Your task to perform on an android device: toggle notifications settings in the gmail app Image 0: 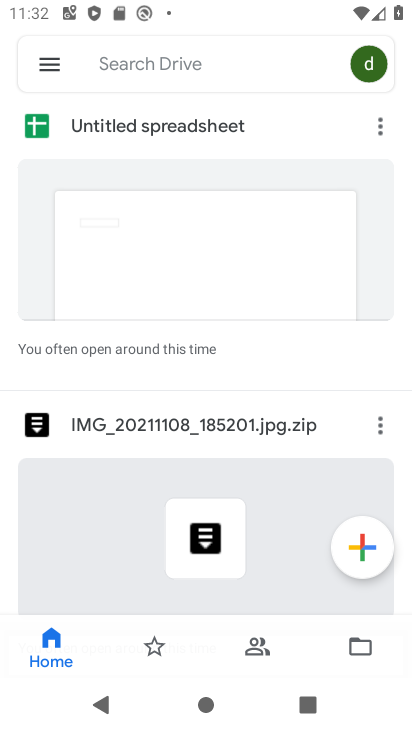
Step 0: press home button
Your task to perform on an android device: toggle notifications settings in the gmail app Image 1: 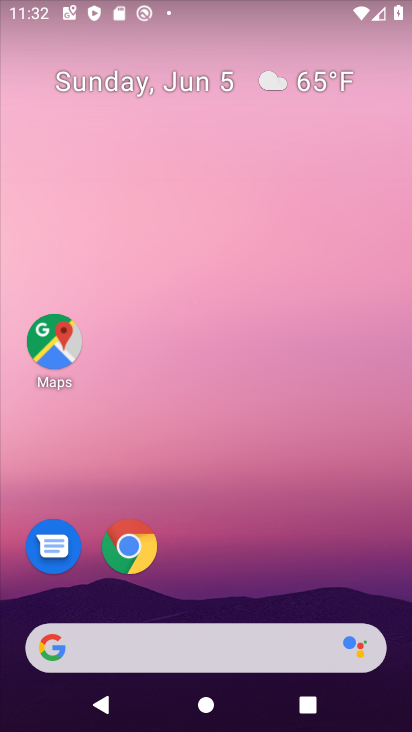
Step 1: drag from (77, 618) to (91, 245)
Your task to perform on an android device: toggle notifications settings in the gmail app Image 2: 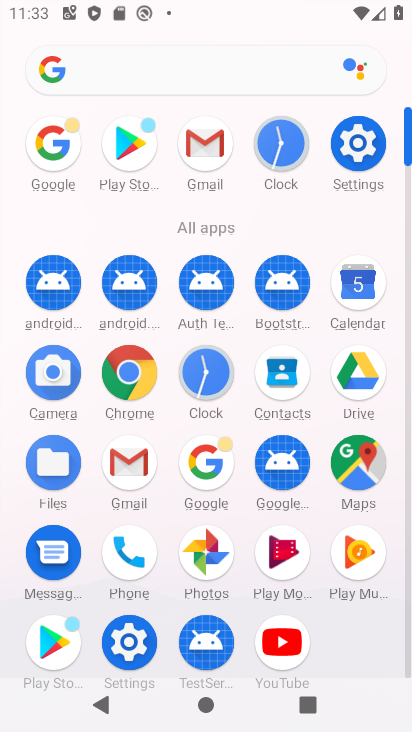
Step 2: click (199, 151)
Your task to perform on an android device: toggle notifications settings in the gmail app Image 3: 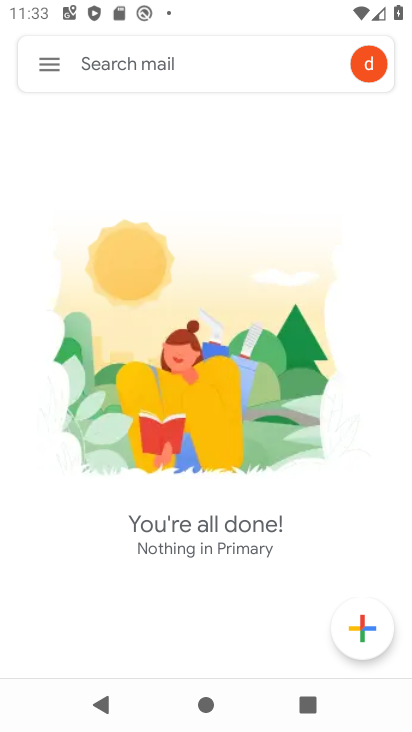
Step 3: click (56, 64)
Your task to perform on an android device: toggle notifications settings in the gmail app Image 4: 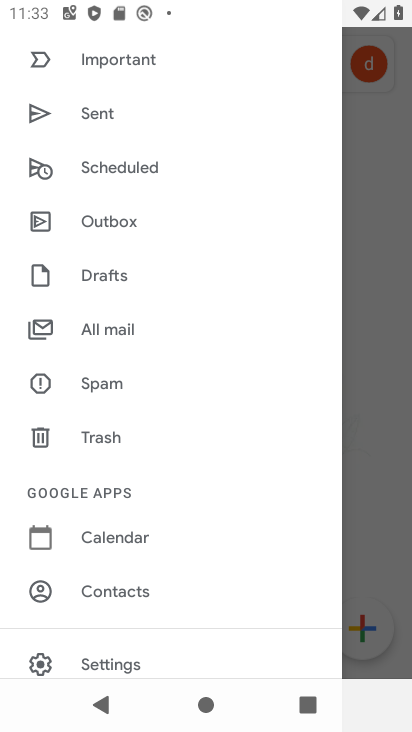
Step 4: click (111, 670)
Your task to perform on an android device: toggle notifications settings in the gmail app Image 5: 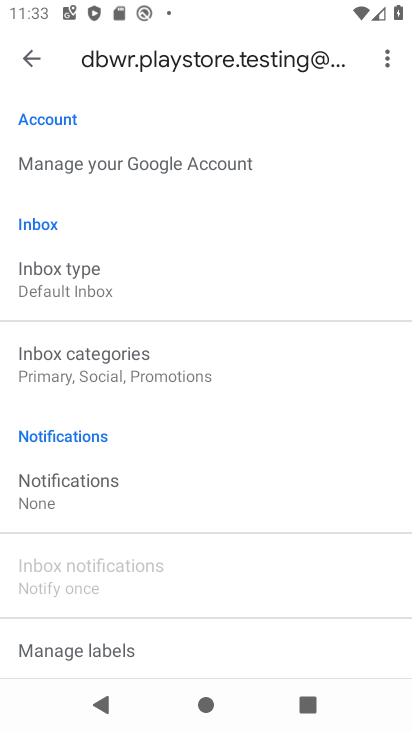
Step 5: click (24, 60)
Your task to perform on an android device: toggle notifications settings in the gmail app Image 6: 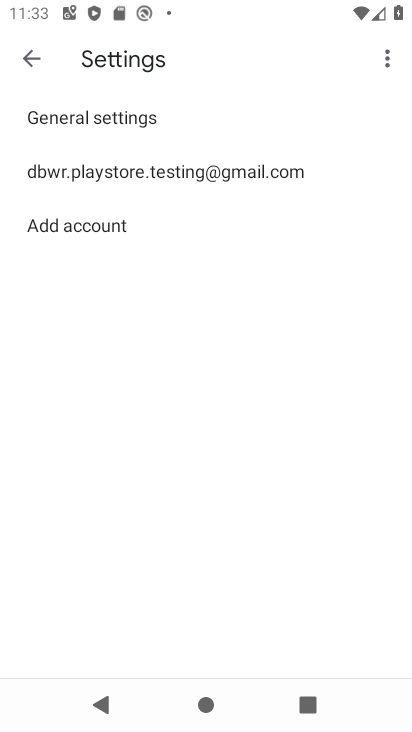
Step 6: click (51, 169)
Your task to perform on an android device: toggle notifications settings in the gmail app Image 7: 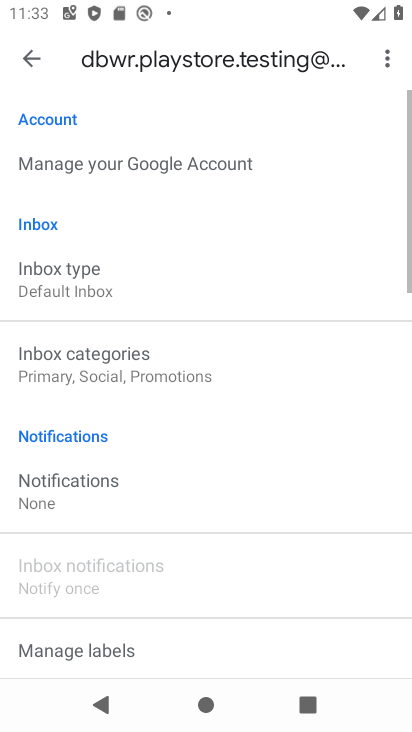
Step 7: click (23, 48)
Your task to perform on an android device: toggle notifications settings in the gmail app Image 8: 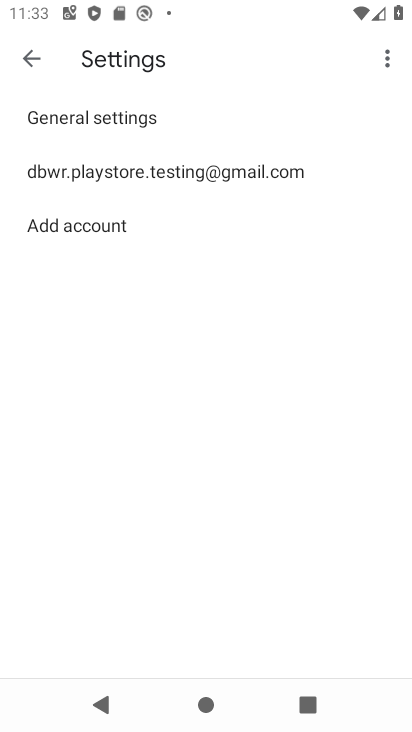
Step 8: click (71, 121)
Your task to perform on an android device: toggle notifications settings in the gmail app Image 9: 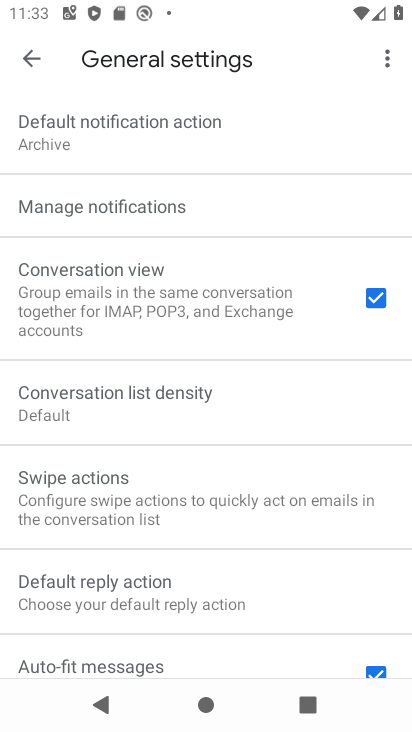
Step 9: click (83, 211)
Your task to perform on an android device: toggle notifications settings in the gmail app Image 10: 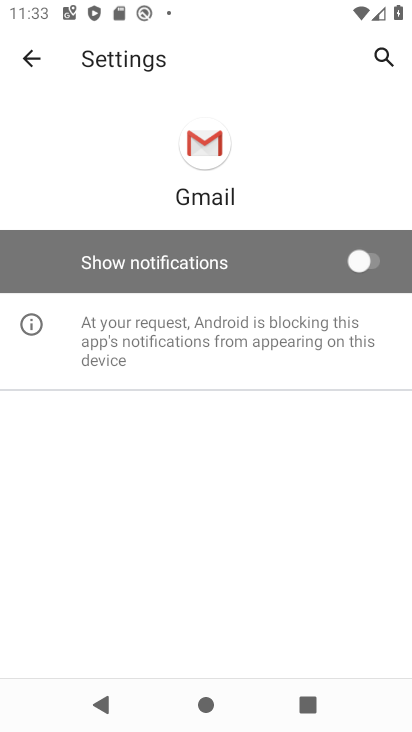
Step 10: click (367, 263)
Your task to perform on an android device: toggle notifications settings in the gmail app Image 11: 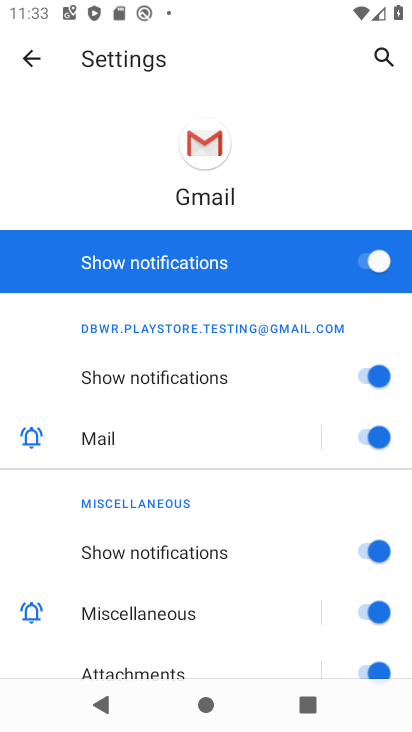
Step 11: task complete